Your task to perform on an android device: uninstall "TextNow: Call + Text Unlimited" Image 0: 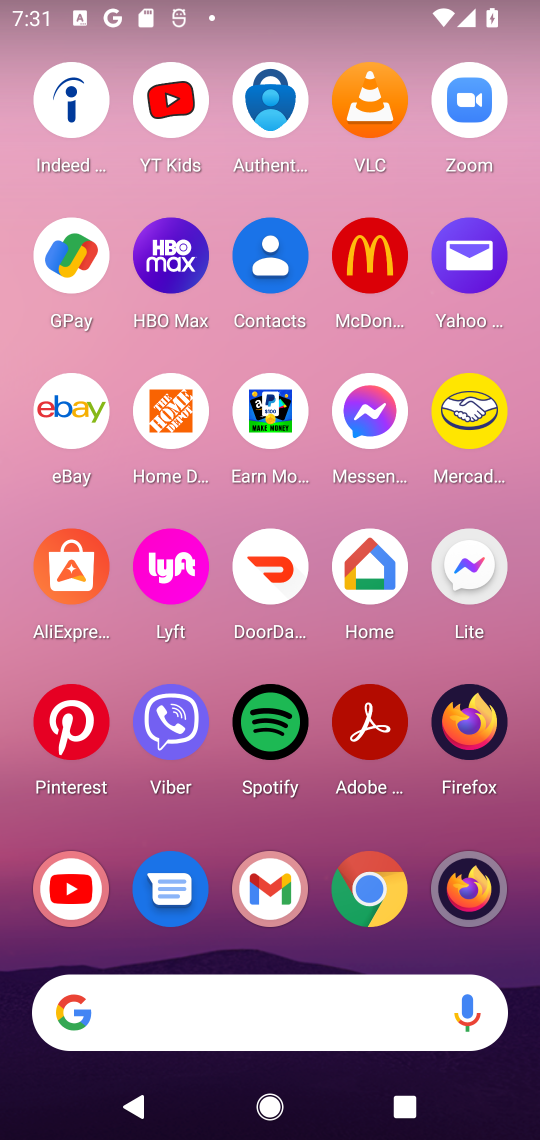
Step 0: press home button
Your task to perform on an android device: uninstall "TextNow: Call + Text Unlimited" Image 1: 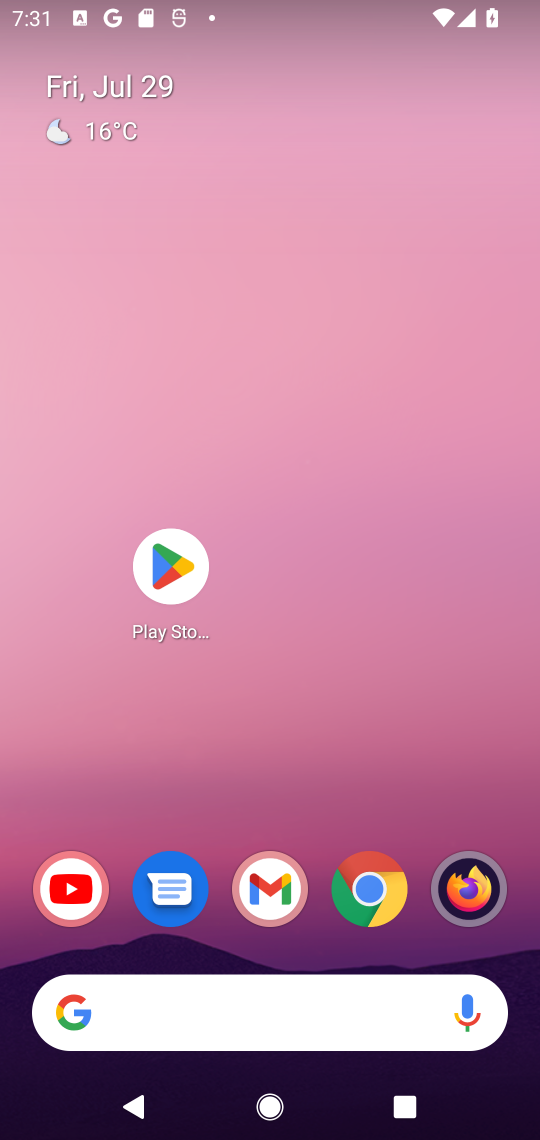
Step 1: click (160, 569)
Your task to perform on an android device: uninstall "TextNow: Call + Text Unlimited" Image 2: 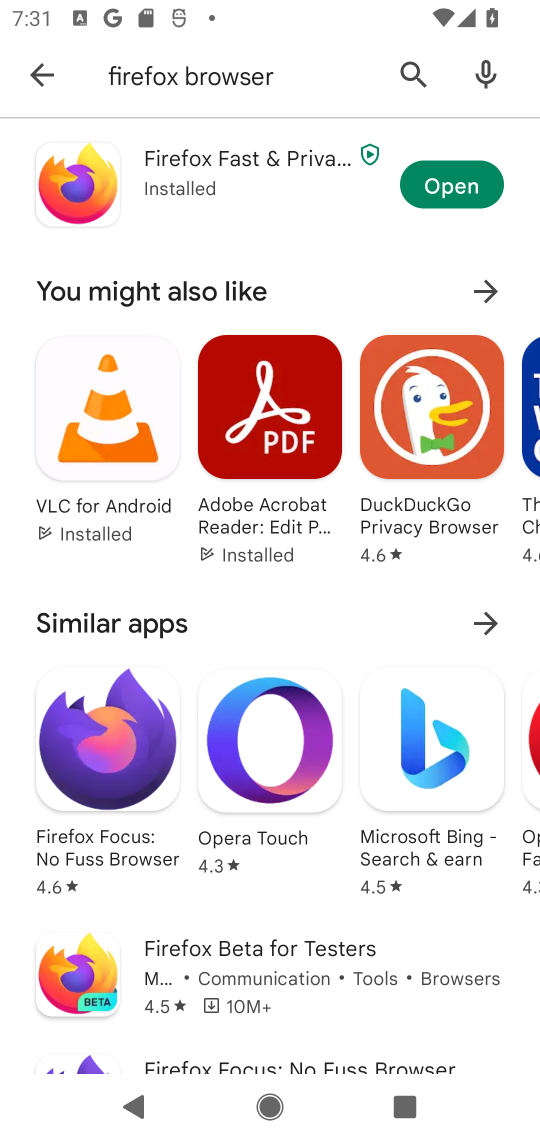
Step 2: click (408, 71)
Your task to perform on an android device: uninstall "TextNow: Call + Text Unlimited" Image 3: 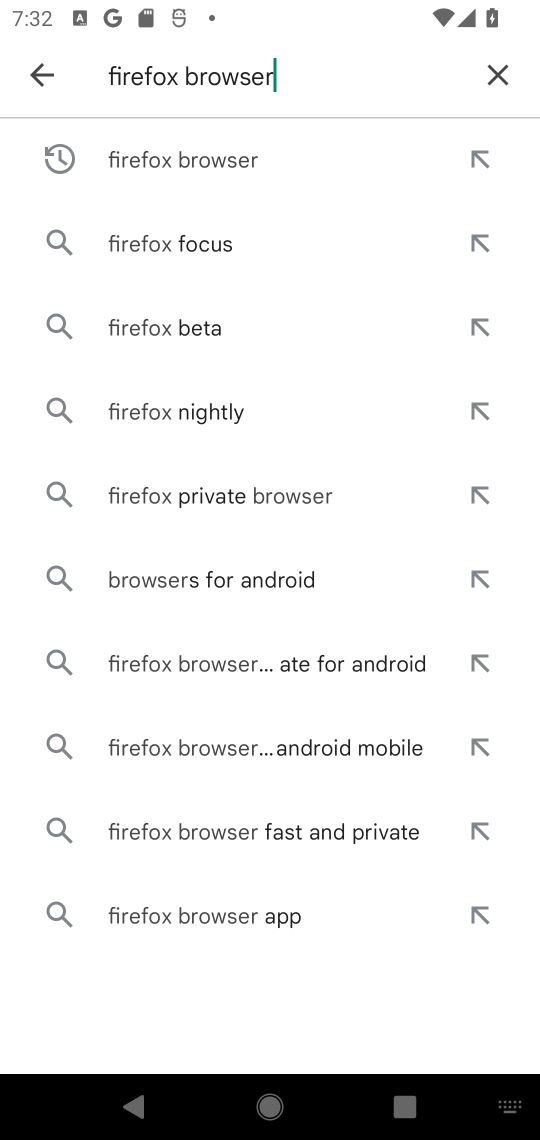
Step 3: click (484, 76)
Your task to perform on an android device: uninstall "TextNow: Call + Text Unlimited" Image 4: 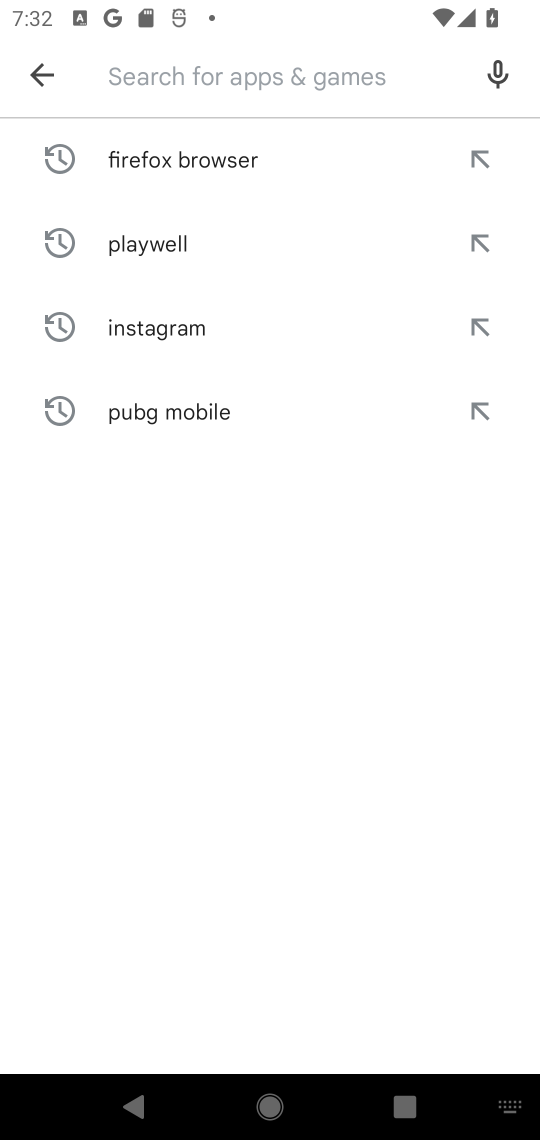
Step 4: type "TextNow: Call + Text Unlimited"
Your task to perform on an android device: uninstall "TextNow: Call + Text Unlimited" Image 5: 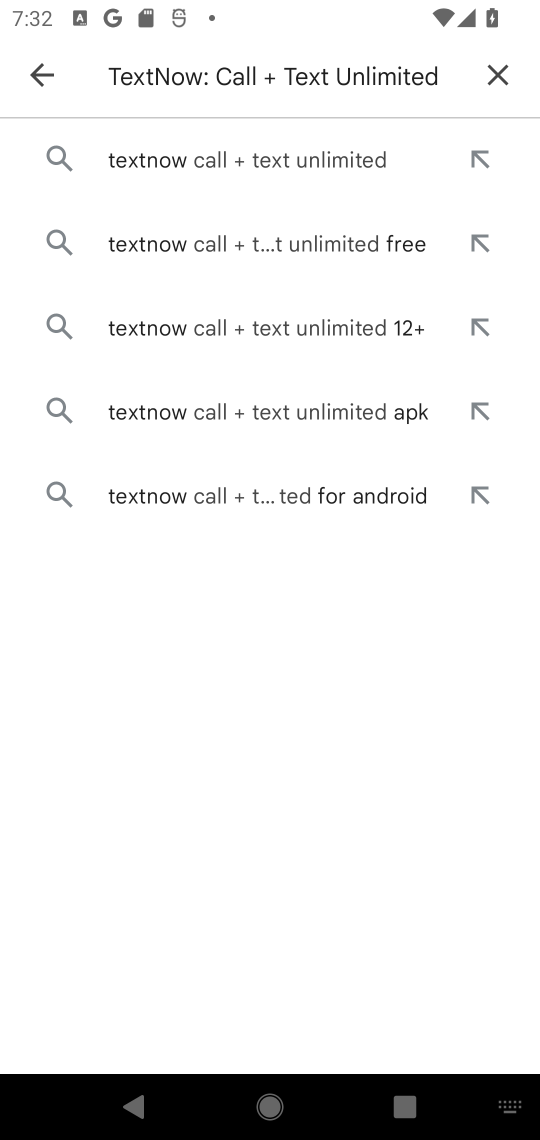
Step 5: click (316, 152)
Your task to perform on an android device: uninstall "TextNow: Call + Text Unlimited" Image 6: 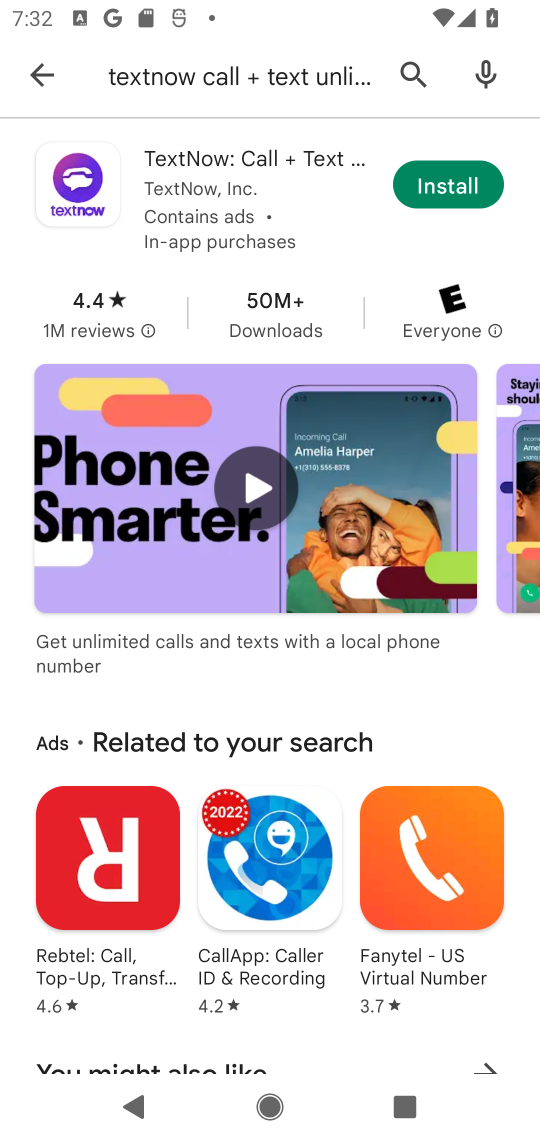
Step 6: task complete